Your task to perform on an android device: turn off priority inbox in the gmail app Image 0: 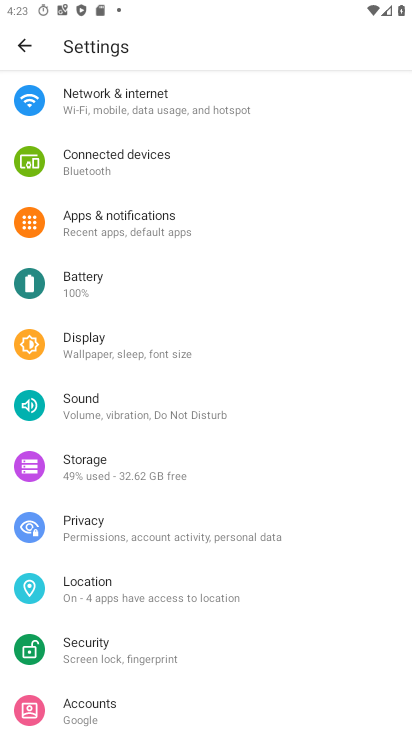
Step 0: press home button
Your task to perform on an android device: turn off priority inbox in the gmail app Image 1: 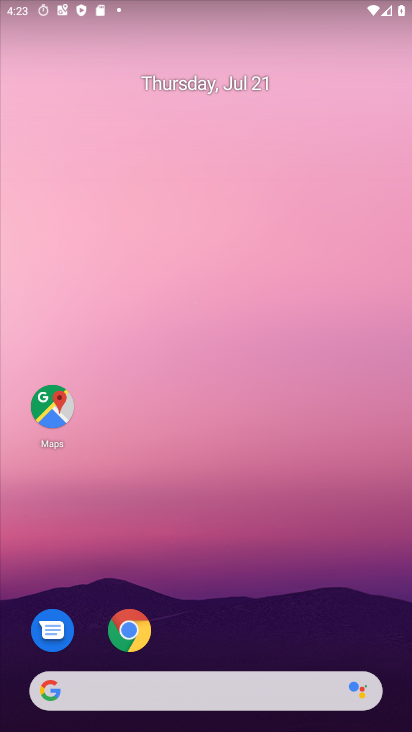
Step 1: drag from (203, 686) to (302, 151)
Your task to perform on an android device: turn off priority inbox in the gmail app Image 2: 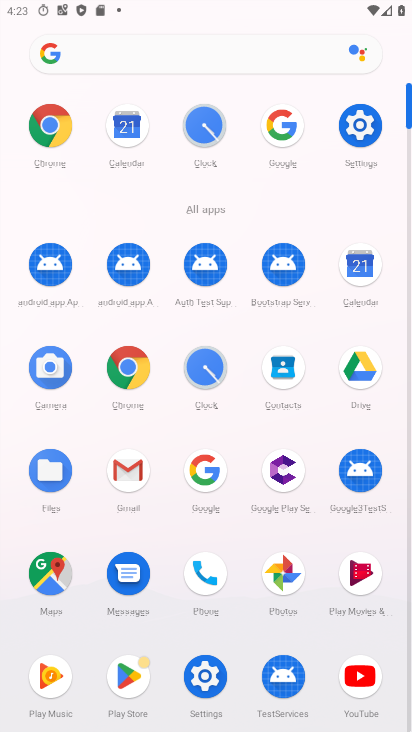
Step 2: click (128, 469)
Your task to perform on an android device: turn off priority inbox in the gmail app Image 3: 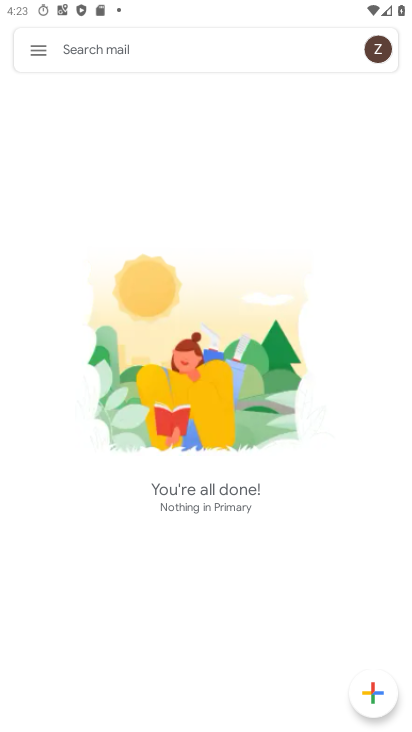
Step 3: click (38, 51)
Your task to perform on an android device: turn off priority inbox in the gmail app Image 4: 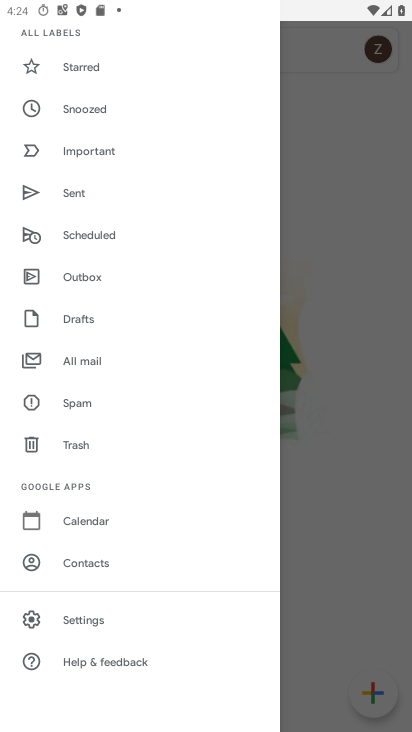
Step 4: click (76, 619)
Your task to perform on an android device: turn off priority inbox in the gmail app Image 5: 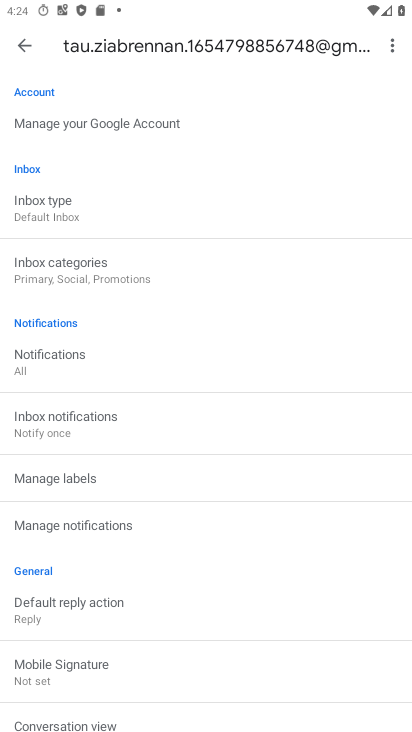
Step 5: click (52, 219)
Your task to perform on an android device: turn off priority inbox in the gmail app Image 6: 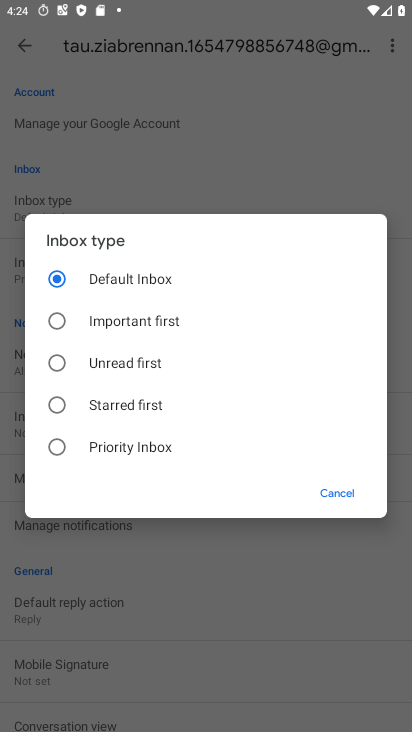
Step 6: click (55, 278)
Your task to perform on an android device: turn off priority inbox in the gmail app Image 7: 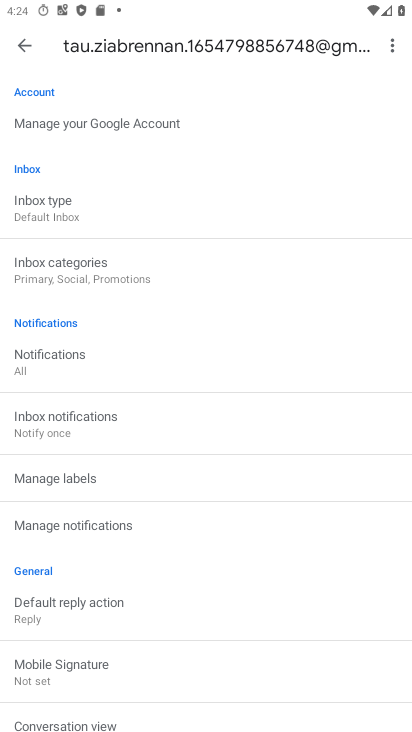
Step 7: task complete